Your task to perform on an android device: star an email in the gmail app Image 0: 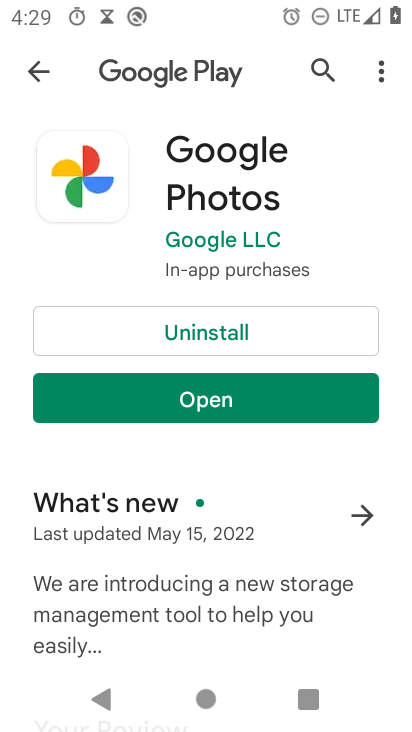
Step 0: press home button
Your task to perform on an android device: star an email in the gmail app Image 1: 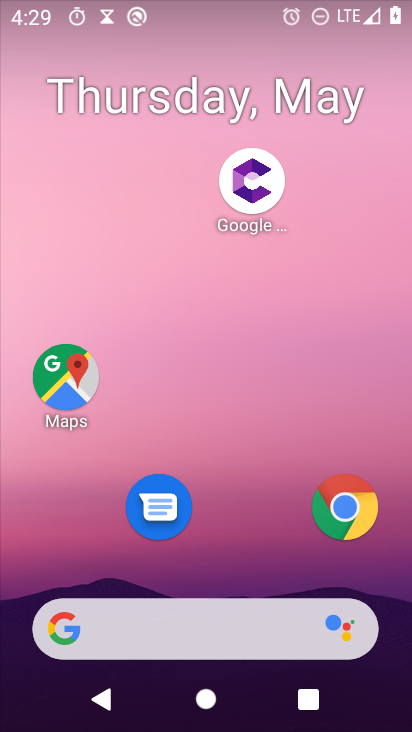
Step 1: drag from (239, 559) to (210, 105)
Your task to perform on an android device: star an email in the gmail app Image 2: 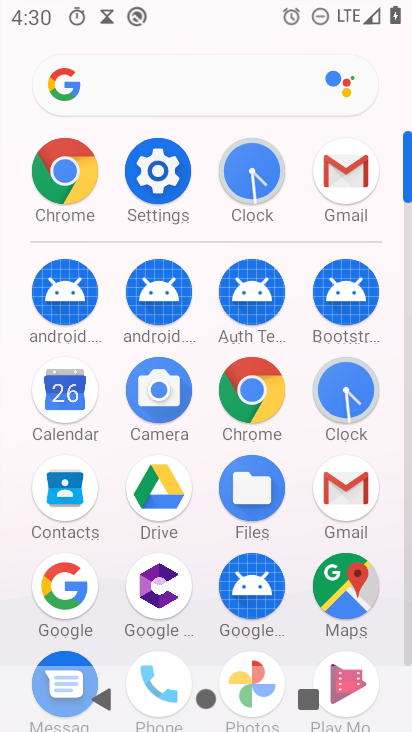
Step 2: click (349, 185)
Your task to perform on an android device: star an email in the gmail app Image 3: 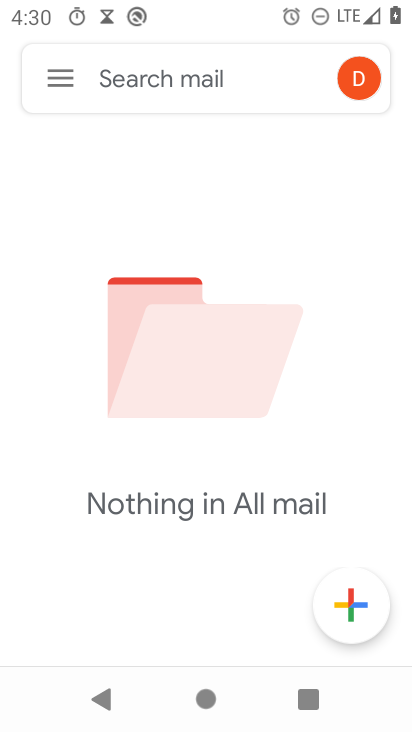
Step 3: click (69, 86)
Your task to perform on an android device: star an email in the gmail app Image 4: 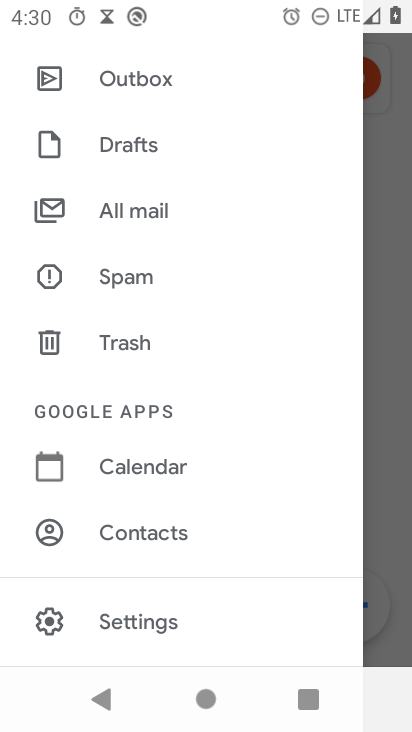
Step 4: drag from (263, 193) to (286, 423)
Your task to perform on an android device: star an email in the gmail app Image 5: 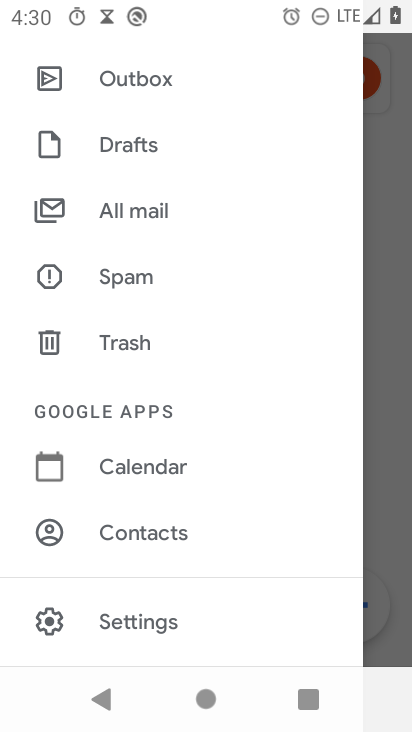
Step 5: drag from (272, 567) to (258, 28)
Your task to perform on an android device: star an email in the gmail app Image 6: 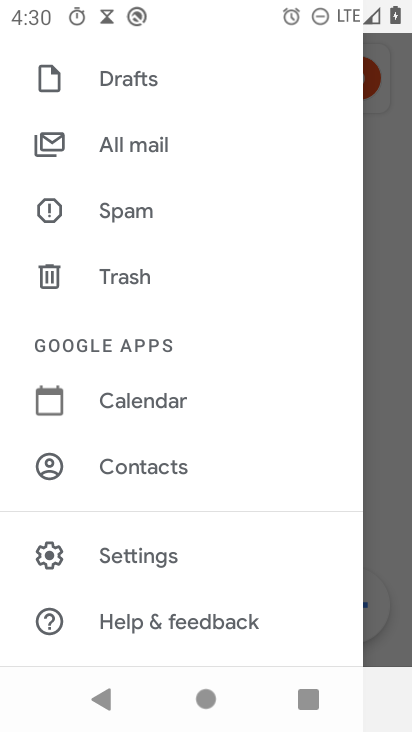
Step 6: drag from (262, 153) to (247, 628)
Your task to perform on an android device: star an email in the gmail app Image 7: 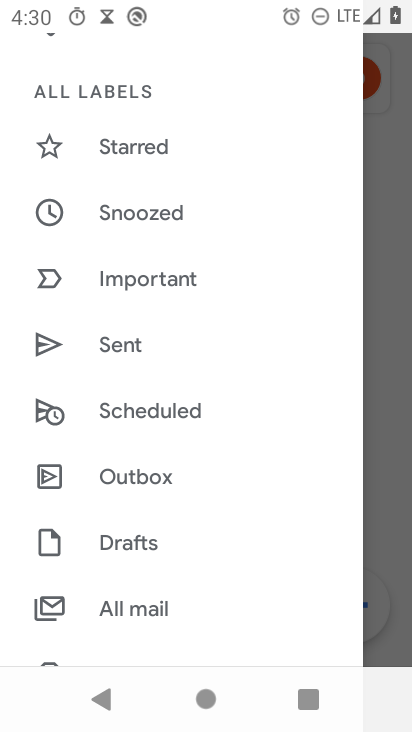
Step 7: click (158, 144)
Your task to perform on an android device: star an email in the gmail app Image 8: 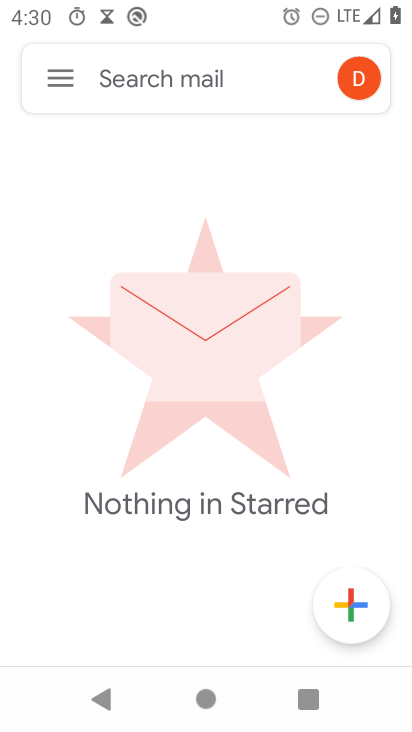
Step 8: task complete